Your task to perform on an android device: Go to ESPN.com Image 0: 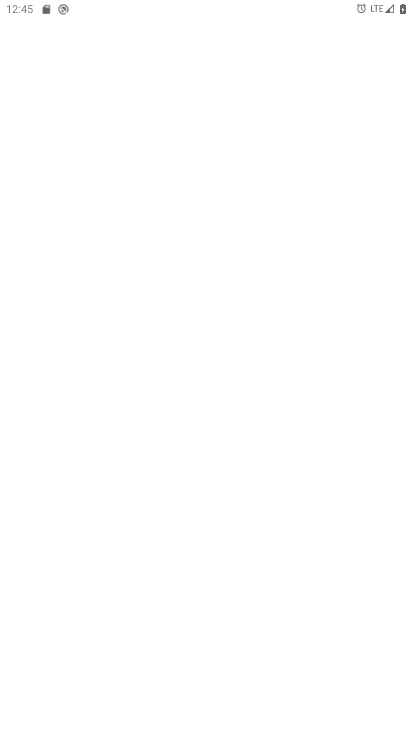
Step 0: press home button
Your task to perform on an android device: Go to ESPN.com Image 1: 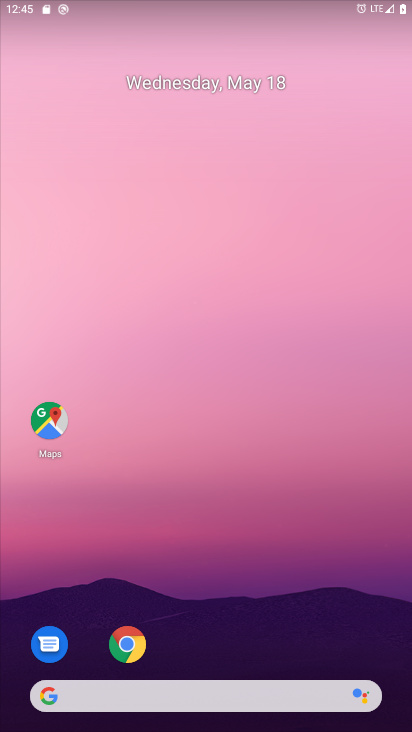
Step 1: click (121, 640)
Your task to perform on an android device: Go to ESPN.com Image 2: 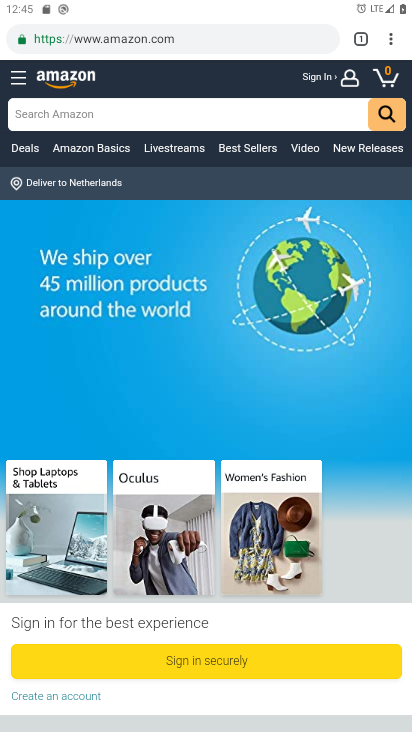
Step 2: click (367, 31)
Your task to perform on an android device: Go to ESPN.com Image 3: 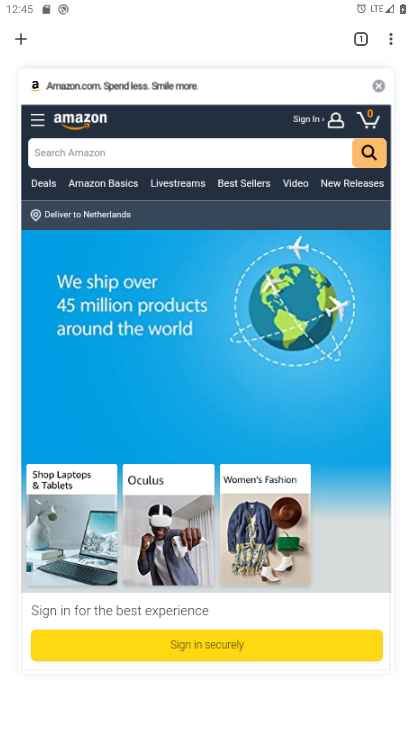
Step 3: click (28, 38)
Your task to perform on an android device: Go to ESPN.com Image 4: 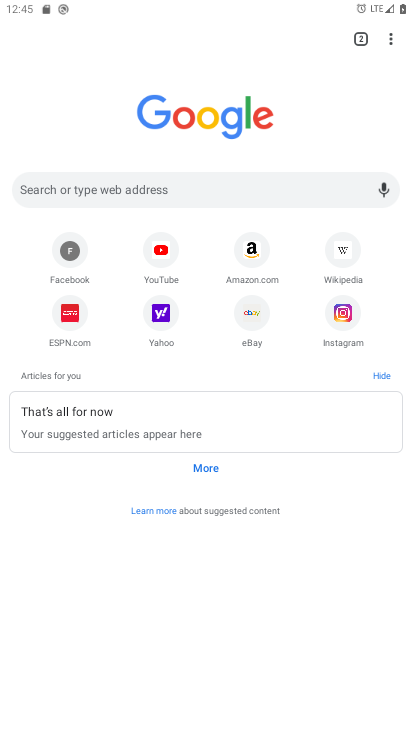
Step 4: click (72, 308)
Your task to perform on an android device: Go to ESPN.com Image 5: 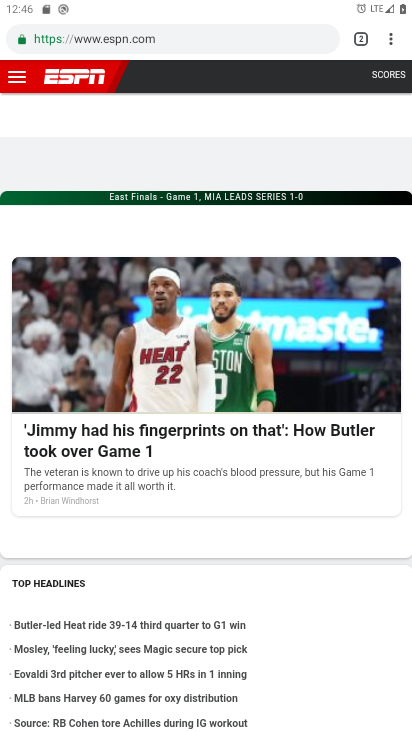
Step 5: task complete